Your task to perform on an android device: Go to Google Image 0: 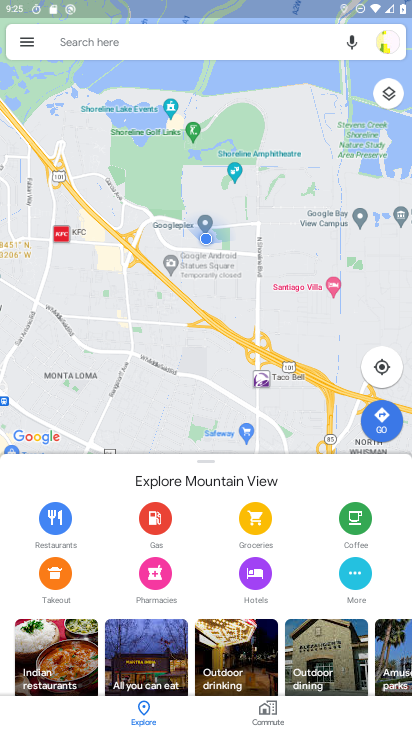
Step 0: press home button
Your task to perform on an android device: Go to Google Image 1: 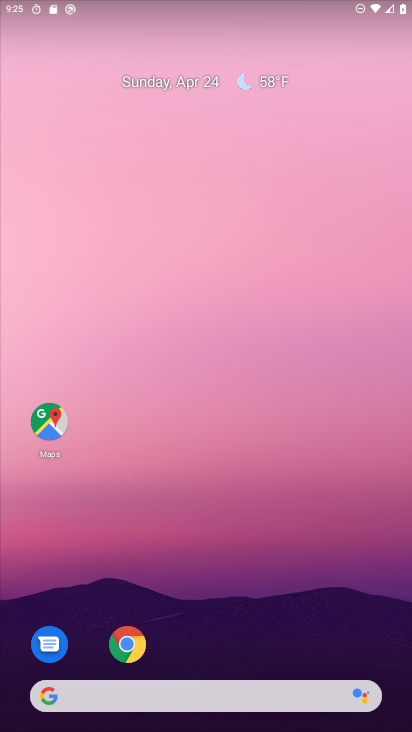
Step 1: drag from (230, 657) to (226, 134)
Your task to perform on an android device: Go to Google Image 2: 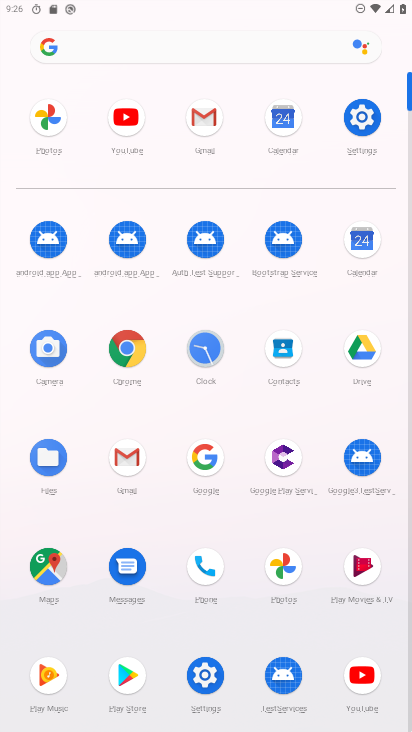
Step 2: click (206, 449)
Your task to perform on an android device: Go to Google Image 3: 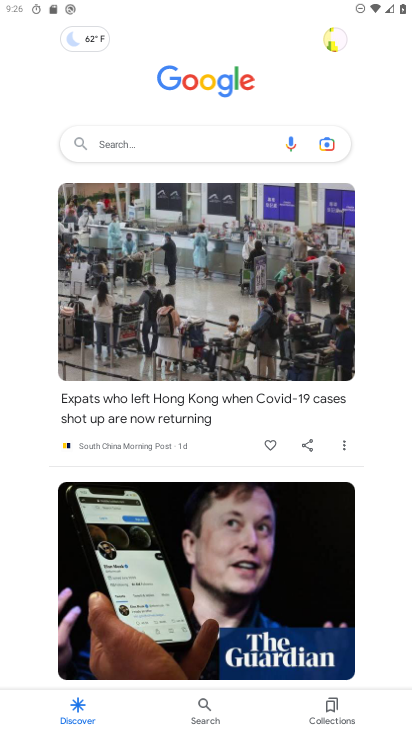
Step 3: task complete